Your task to perform on an android device: Do I have any events tomorrow? Image 0: 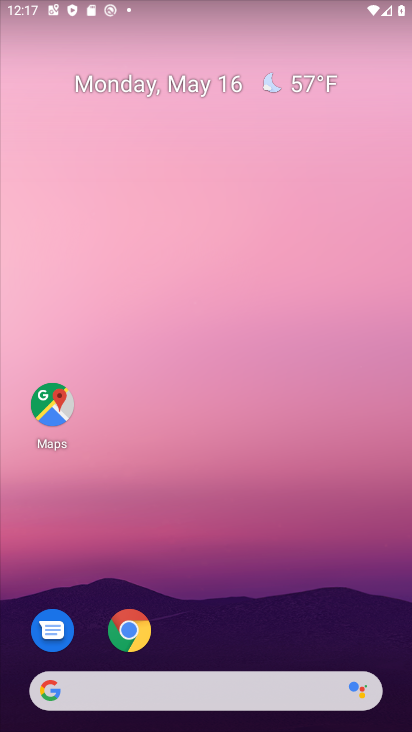
Step 0: drag from (197, 660) to (259, 316)
Your task to perform on an android device: Do I have any events tomorrow? Image 1: 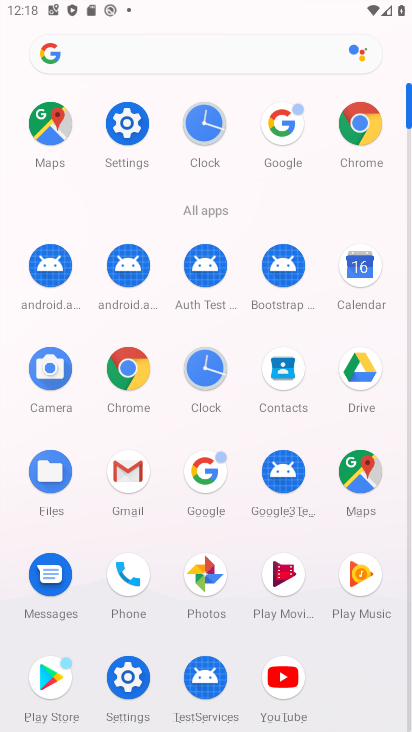
Step 1: click (365, 266)
Your task to perform on an android device: Do I have any events tomorrow? Image 2: 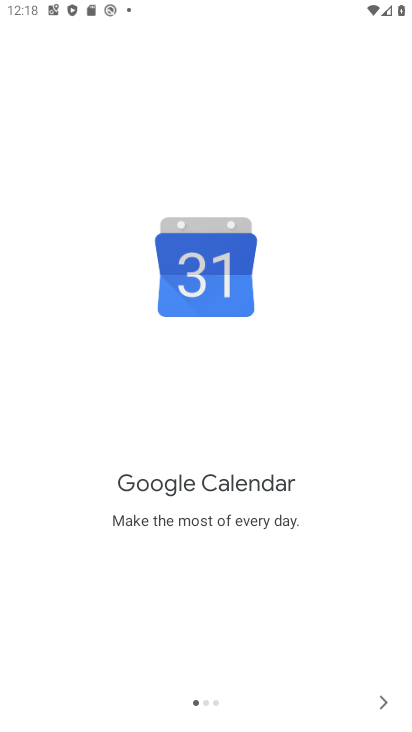
Step 2: click (382, 707)
Your task to perform on an android device: Do I have any events tomorrow? Image 3: 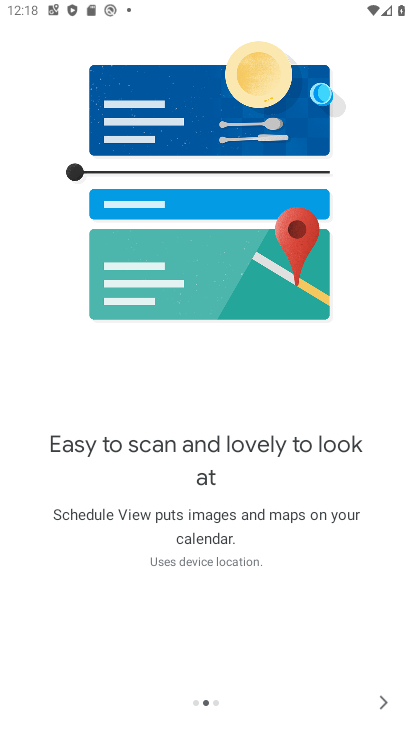
Step 3: click (382, 707)
Your task to perform on an android device: Do I have any events tomorrow? Image 4: 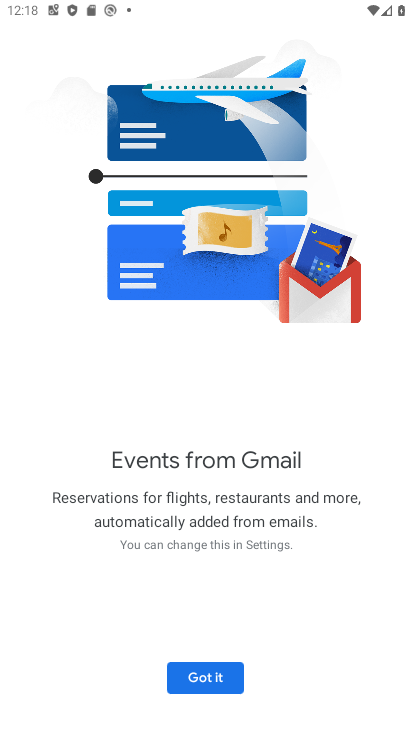
Step 4: click (216, 682)
Your task to perform on an android device: Do I have any events tomorrow? Image 5: 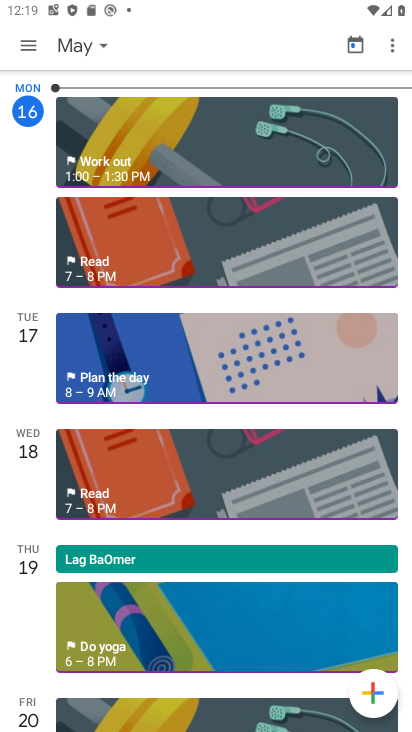
Step 5: click (122, 382)
Your task to perform on an android device: Do I have any events tomorrow? Image 6: 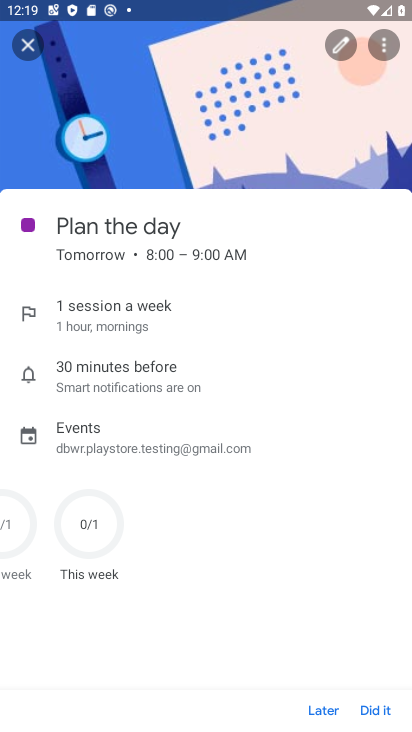
Step 6: task complete